Your task to perform on an android device: Search for sushi restaurants on Maps Image 0: 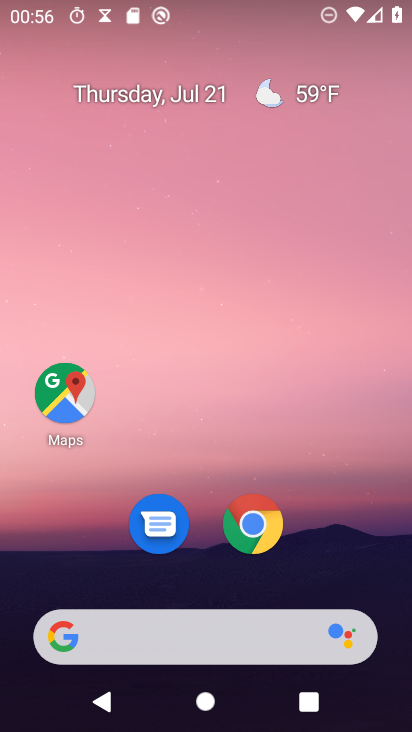
Step 0: click (71, 396)
Your task to perform on an android device: Search for sushi restaurants on Maps Image 1: 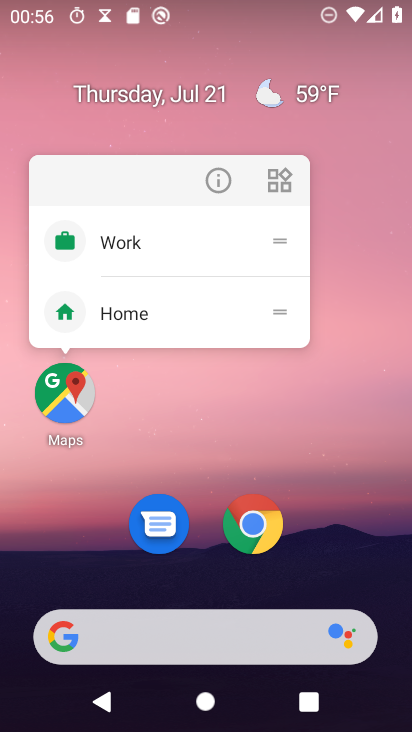
Step 1: click (71, 395)
Your task to perform on an android device: Search for sushi restaurants on Maps Image 2: 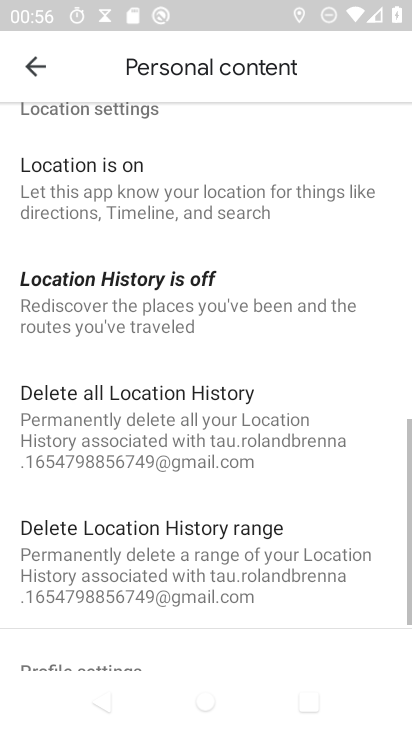
Step 2: click (30, 63)
Your task to perform on an android device: Search for sushi restaurants on Maps Image 3: 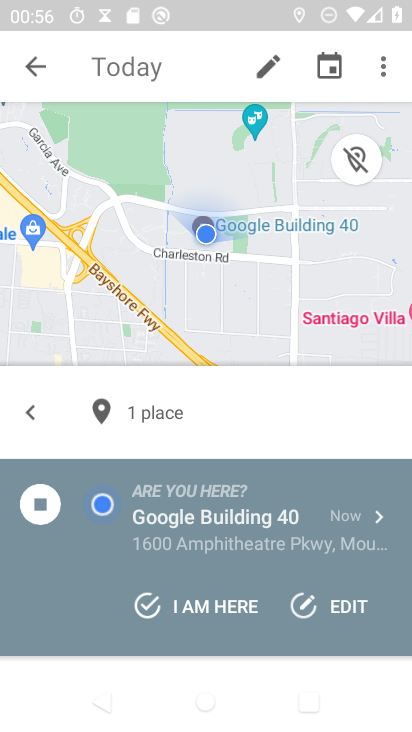
Step 3: click (30, 64)
Your task to perform on an android device: Search for sushi restaurants on Maps Image 4: 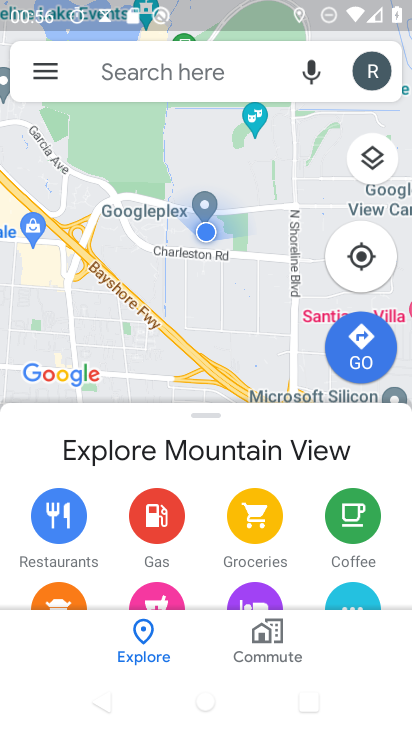
Step 4: click (138, 62)
Your task to perform on an android device: Search for sushi restaurants on Maps Image 5: 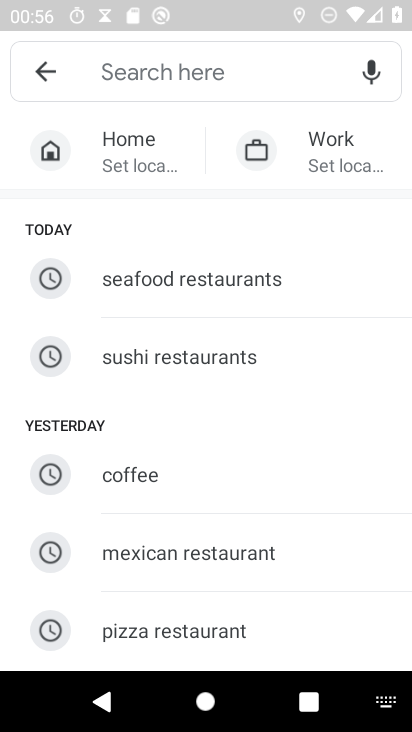
Step 5: click (119, 358)
Your task to perform on an android device: Search for sushi restaurants on Maps Image 6: 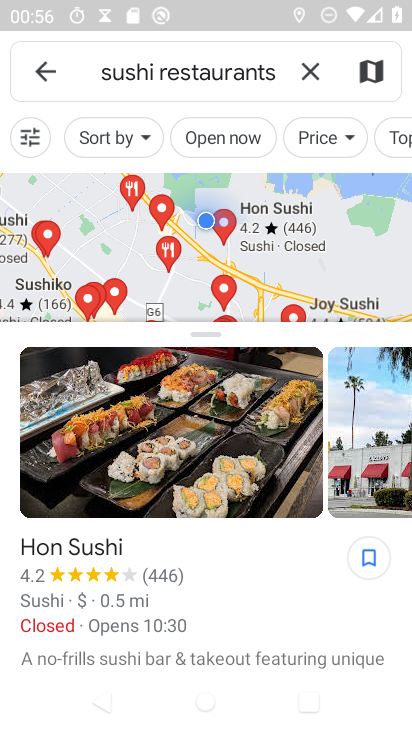
Step 6: task complete